Your task to perform on an android device: Play the last video I watched on Youtube Image 0: 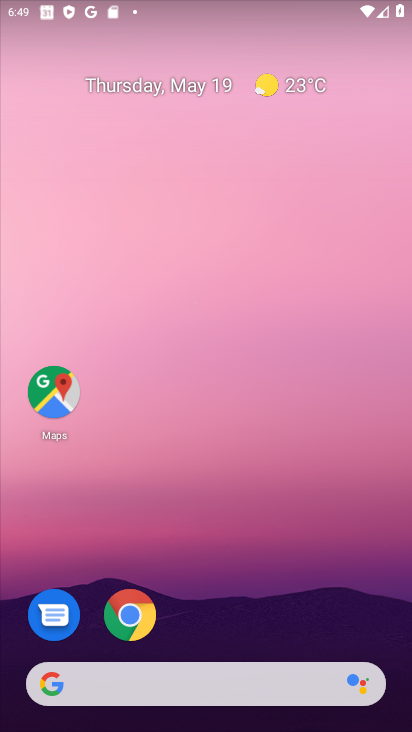
Step 0: drag from (353, 621) to (215, 40)
Your task to perform on an android device: Play the last video I watched on Youtube Image 1: 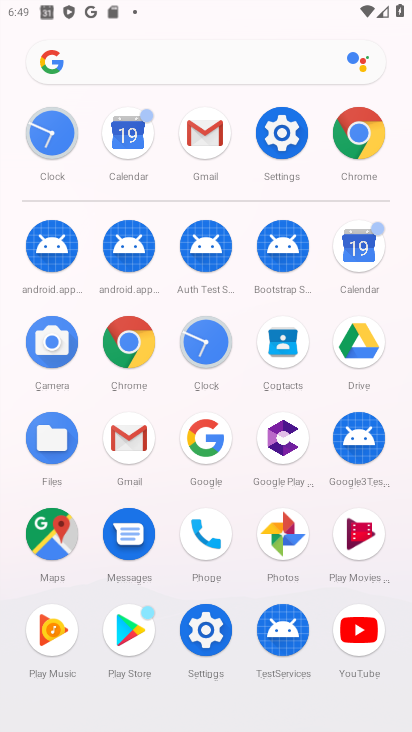
Step 1: click (354, 637)
Your task to perform on an android device: Play the last video I watched on Youtube Image 2: 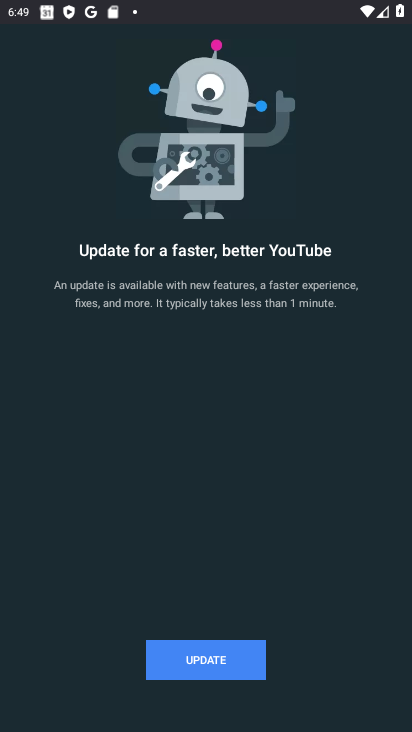
Step 2: click (167, 656)
Your task to perform on an android device: Play the last video I watched on Youtube Image 3: 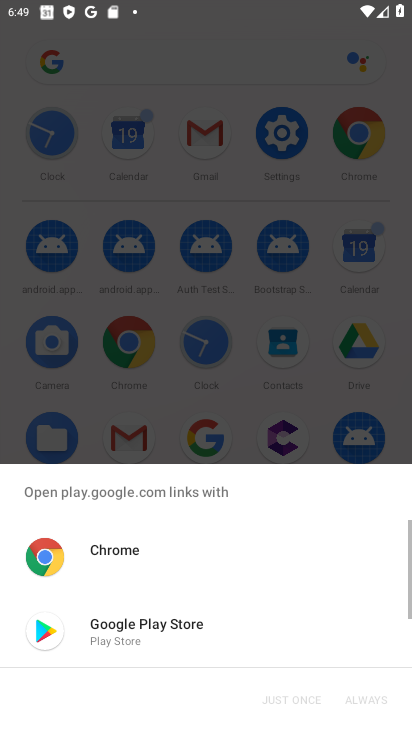
Step 3: click (110, 611)
Your task to perform on an android device: Play the last video I watched on Youtube Image 4: 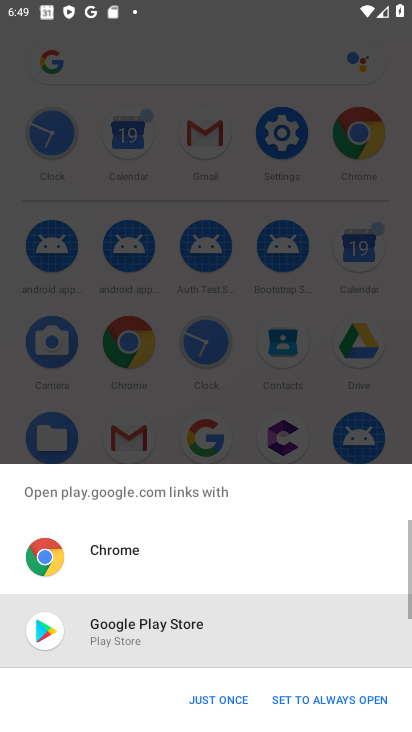
Step 4: click (215, 694)
Your task to perform on an android device: Play the last video I watched on Youtube Image 5: 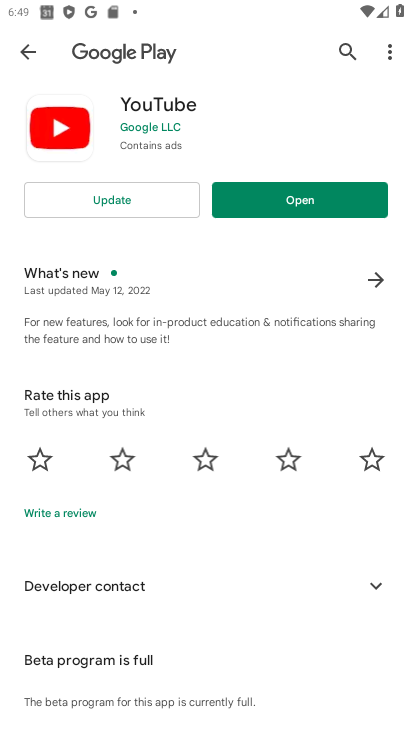
Step 5: click (127, 206)
Your task to perform on an android device: Play the last video I watched on Youtube Image 6: 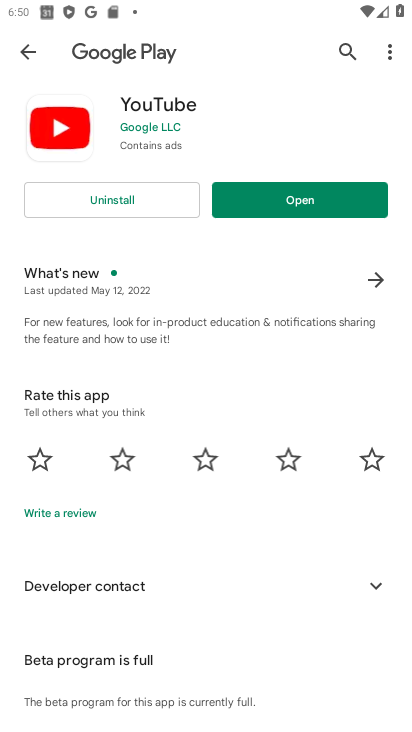
Step 6: click (293, 216)
Your task to perform on an android device: Play the last video I watched on Youtube Image 7: 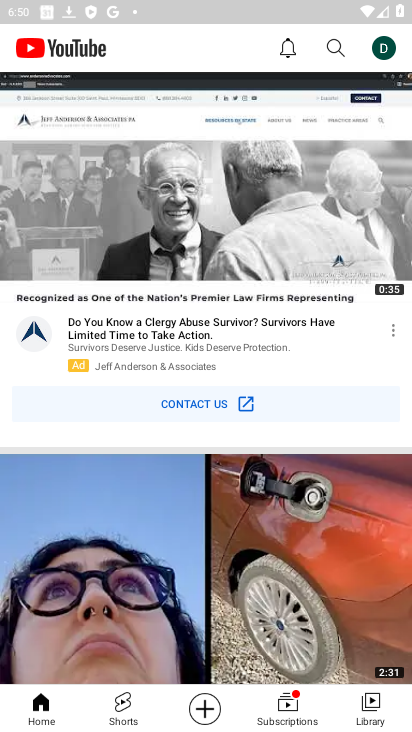
Step 7: click (367, 716)
Your task to perform on an android device: Play the last video I watched on Youtube Image 8: 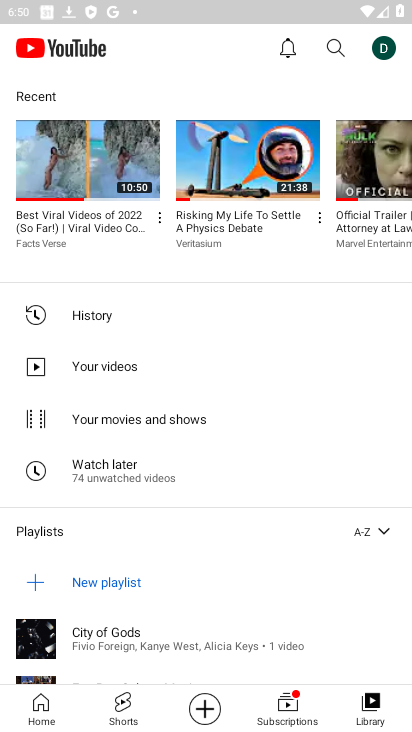
Step 8: click (79, 166)
Your task to perform on an android device: Play the last video I watched on Youtube Image 9: 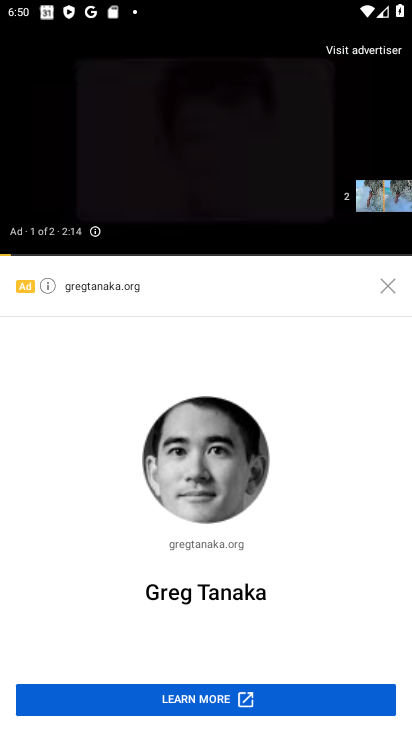
Step 9: click (400, 284)
Your task to perform on an android device: Play the last video I watched on Youtube Image 10: 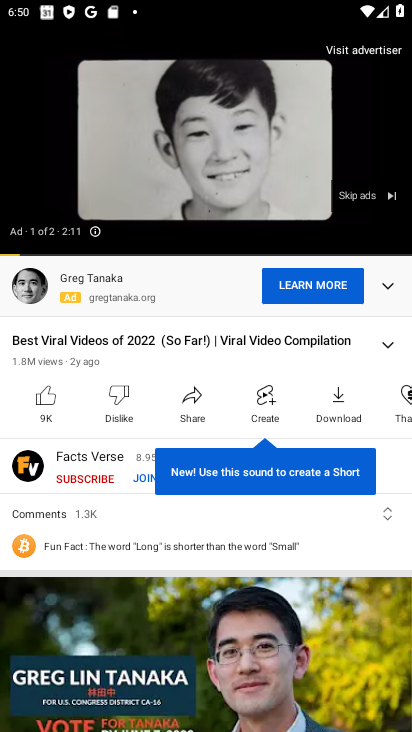
Step 10: click (361, 194)
Your task to perform on an android device: Play the last video I watched on Youtube Image 11: 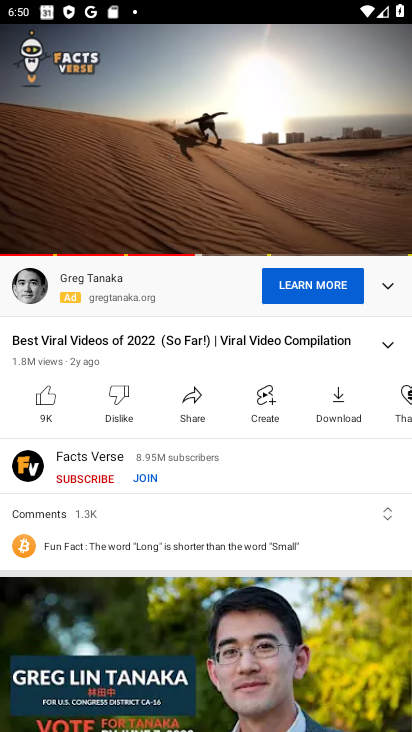
Step 11: click (207, 154)
Your task to perform on an android device: Play the last video I watched on Youtube Image 12: 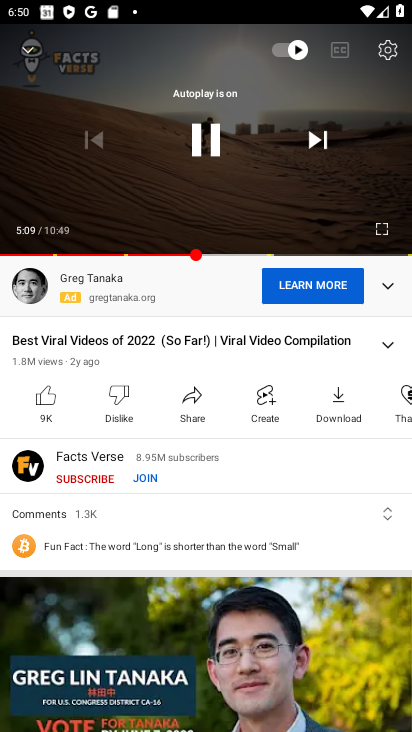
Step 12: click (207, 154)
Your task to perform on an android device: Play the last video I watched on Youtube Image 13: 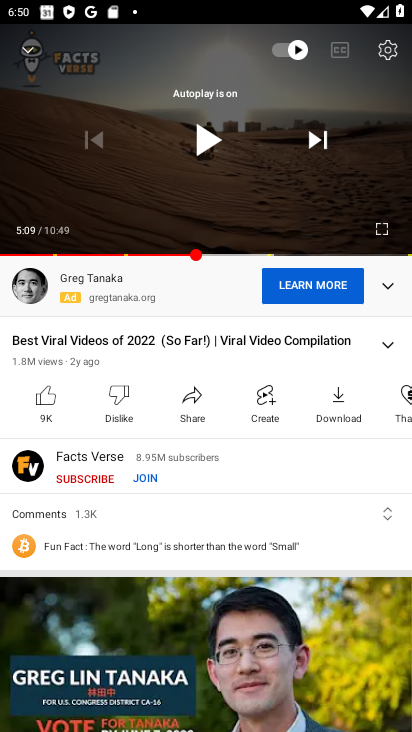
Step 13: task complete